Your task to perform on an android device: change the clock display to show seconds Image 0: 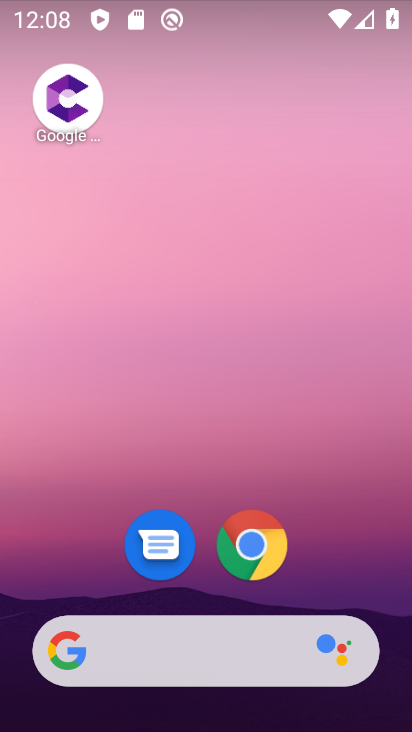
Step 0: drag from (328, 565) to (307, 86)
Your task to perform on an android device: change the clock display to show seconds Image 1: 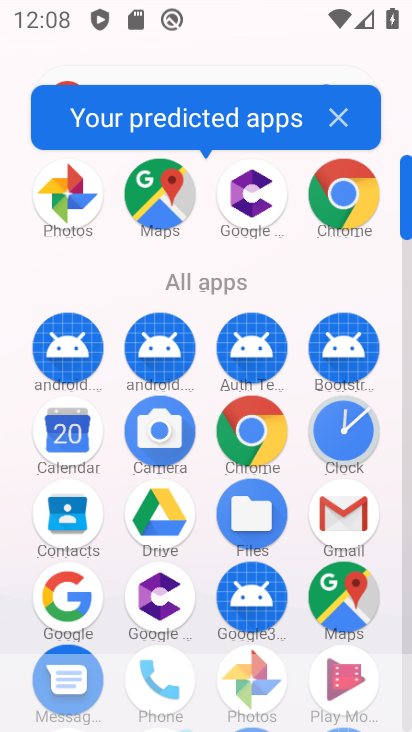
Step 1: click (345, 430)
Your task to perform on an android device: change the clock display to show seconds Image 2: 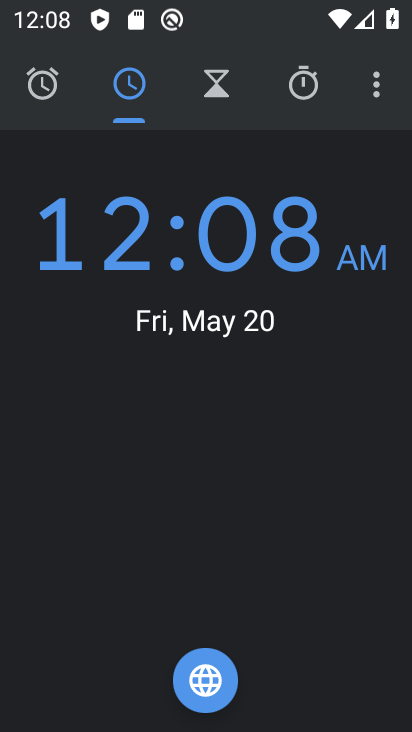
Step 2: click (382, 92)
Your task to perform on an android device: change the clock display to show seconds Image 3: 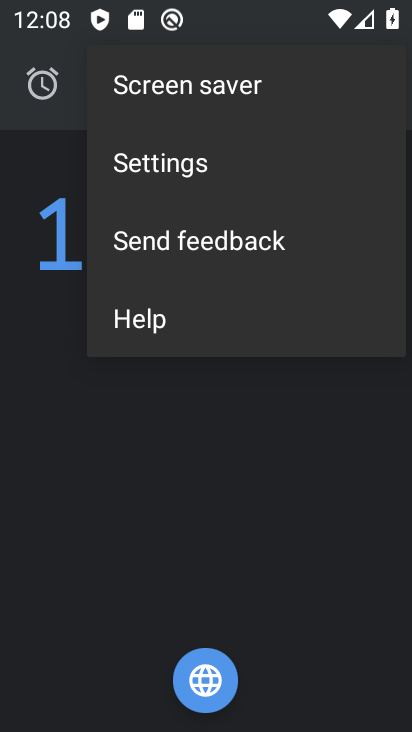
Step 3: click (206, 166)
Your task to perform on an android device: change the clock display to show seconds Image 4: 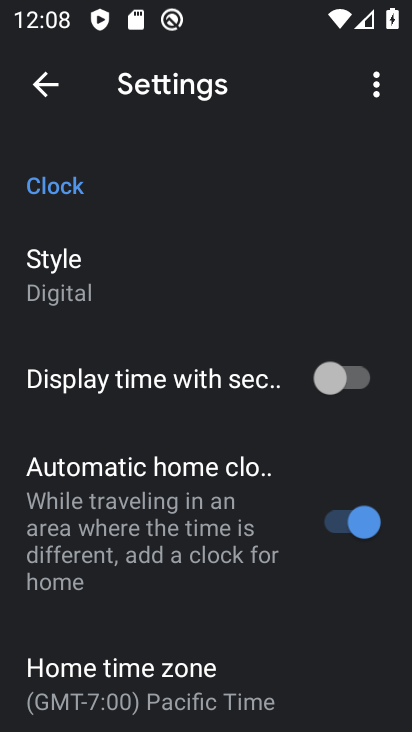
Step 4: click (353, 375)
Your task to perform on an android device: change the clock display to show seconds Image 5: 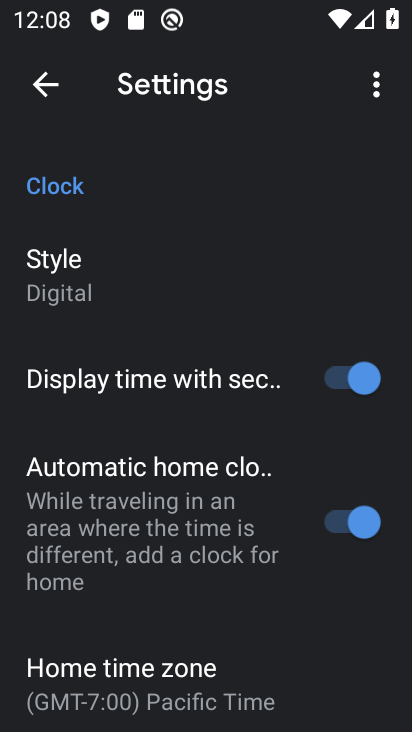
Step 5: task complete